Your task to perform on an android device: Set the phone to "Do not disturb". Image 0: 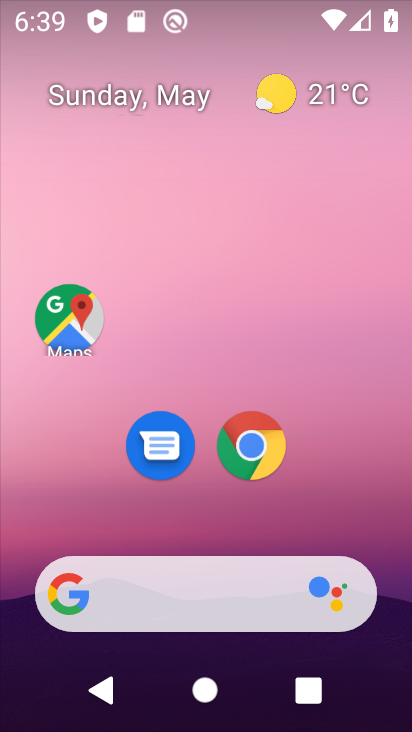
Step 0: drag from (336, 501) to (193, 54)
Your task to perform on an android device: Set the phone to "Do not disturb". Image 1: 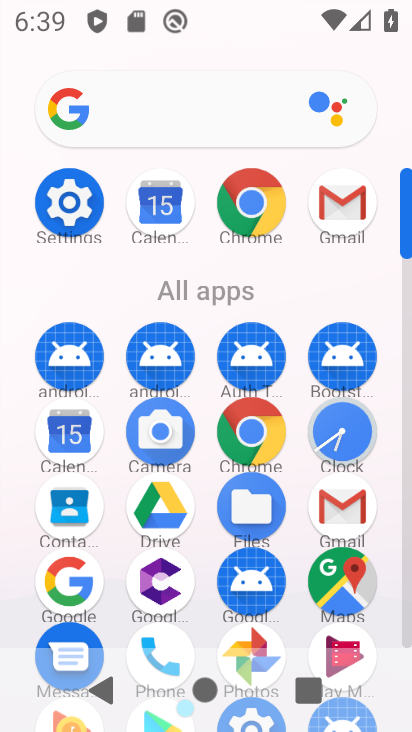
Step 1: click (70, 187)
Your task to perform on an android device: Set the phone to "Do not disturb". Image 2: 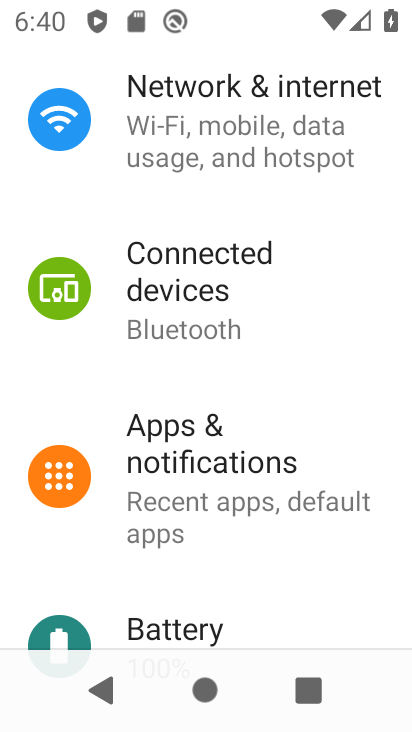
Step 2: drag from (275, 530) to (224, 285)
Your task to perform on an android device: Set the phone to "Do not disturb". Image 3: 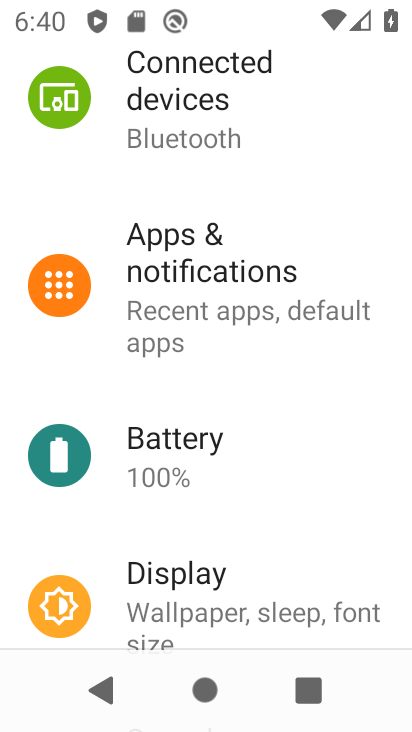
Step 3: drag from (225, 483) to (173, 87)
Your task to perform on an android device: Set the phone to "Do not disturb". Image 4: 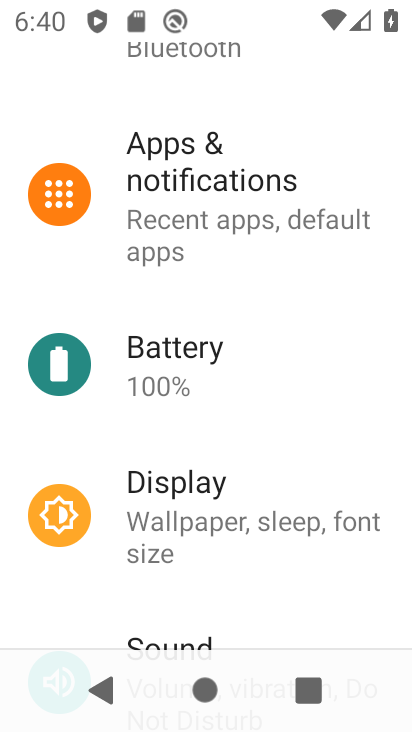
Step 4: drag from (234, 397) to (196, 101)
Your task to perform on an android device: Set the phone to "Do not disturb". Image 5: 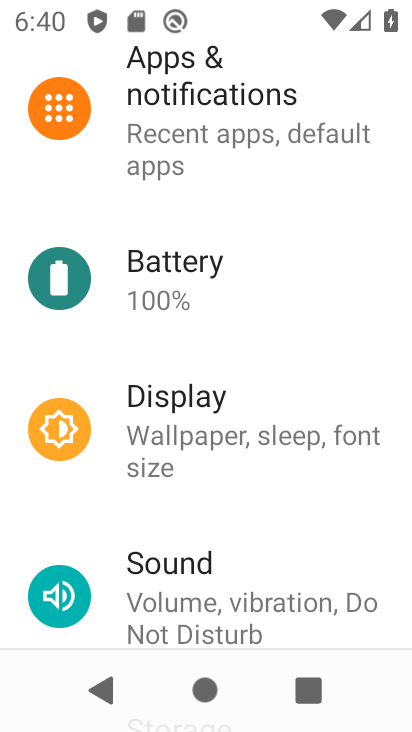
Step 5: click (171, 575)
Your task to perform on an android device: Set the phone to "Do not disturb". Image 6: 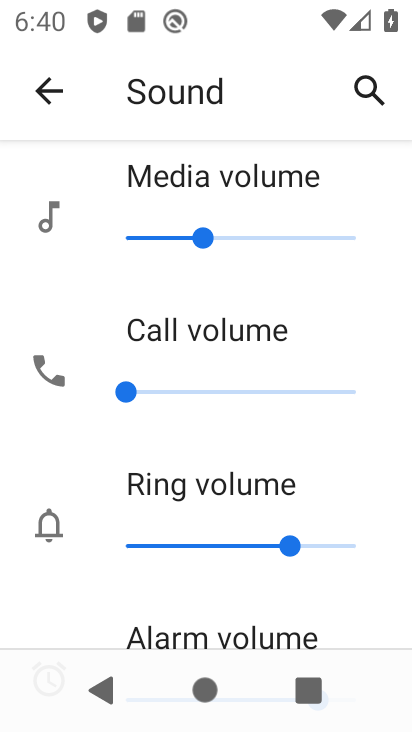
Step 6: drag from (339, 464) to (255, 105)
Your task to perform on an android device: Set the phone to "Do not disturb". Image 7: 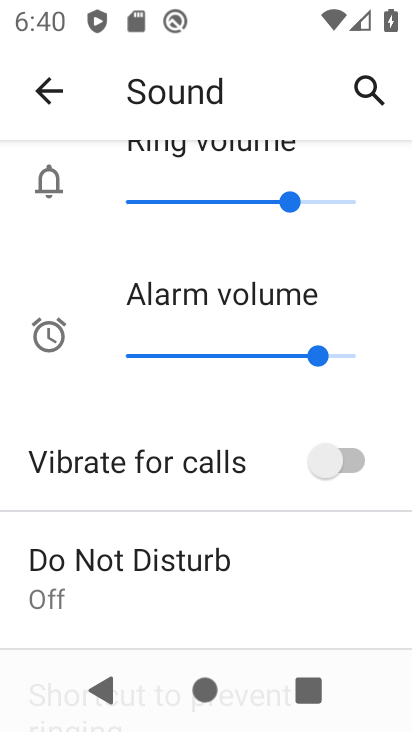
Step 7: drag from (237, 584) to (189, 357)
Your task to perform on an android device: Set the phone to "Do not disturb". Image 8: 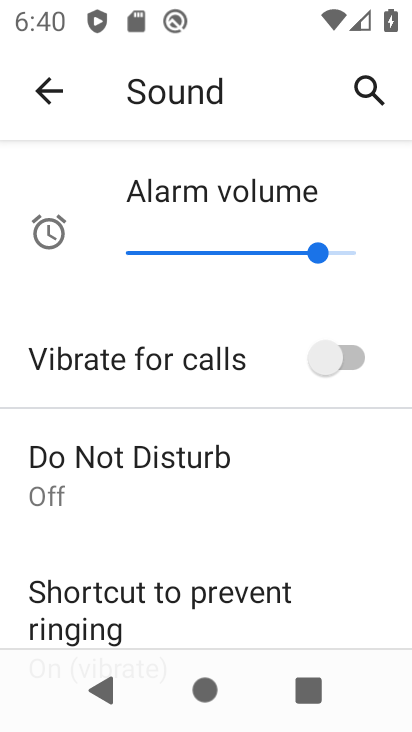
Step 8: click (137, 457)
Your task to perform on an android device: Set the phone to "Do not disturb". Image 9: 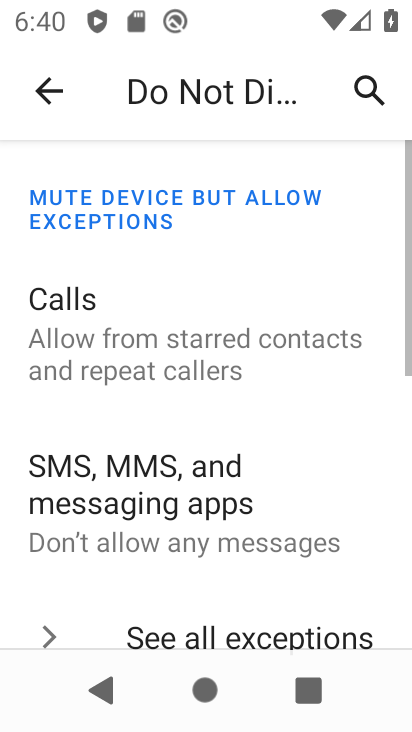
Step 9: drag from (209, 481) to (120, 151)
Your task to perform on an android device: Set the phone to "Do not disturb". Image 10: 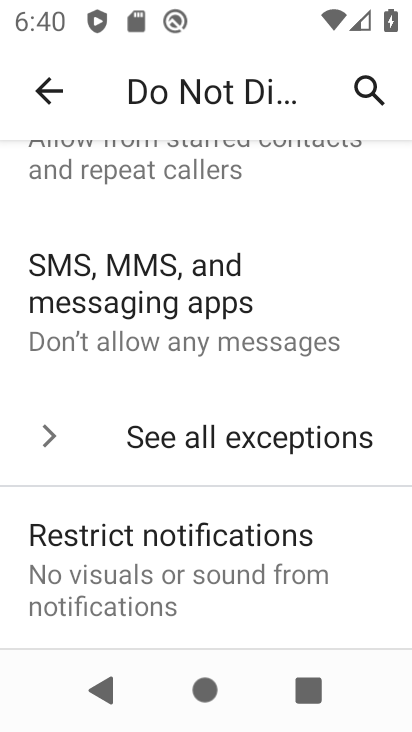
Step 10: drag from (200, 517) to (82, 125)
Your task to perform on an android device: Set the phone to "Do not disturb". Image 11: 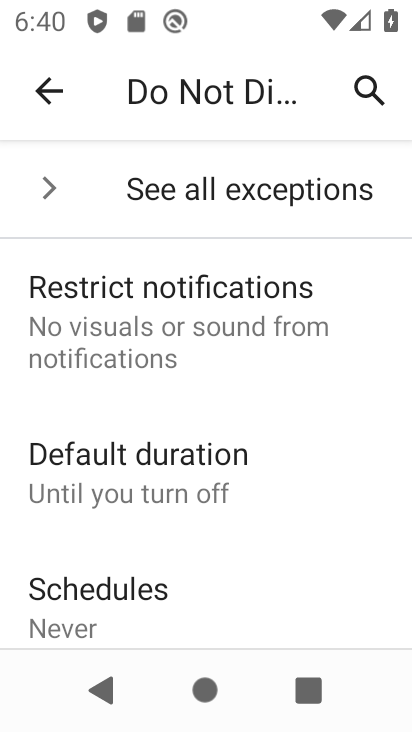
Step 11: drag from (177, 539) to (104, 222)
Your task to perform on an android device: Set the phone to "Do not disturb". Image 12: 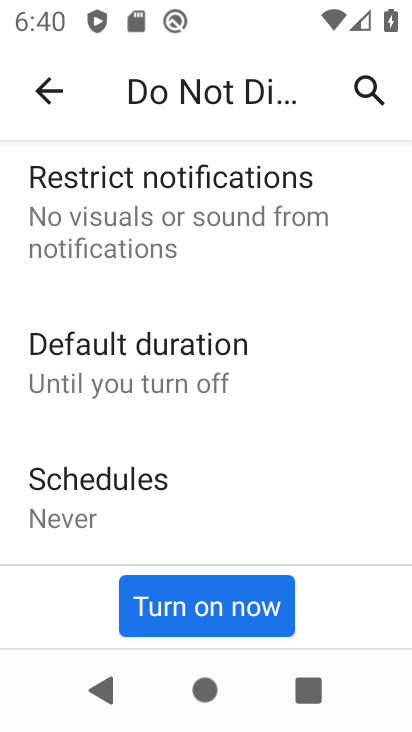
Step 12: click (228, 600)
Your task to perform on an android device: Set the phone to "Do not disturb". Image 13: 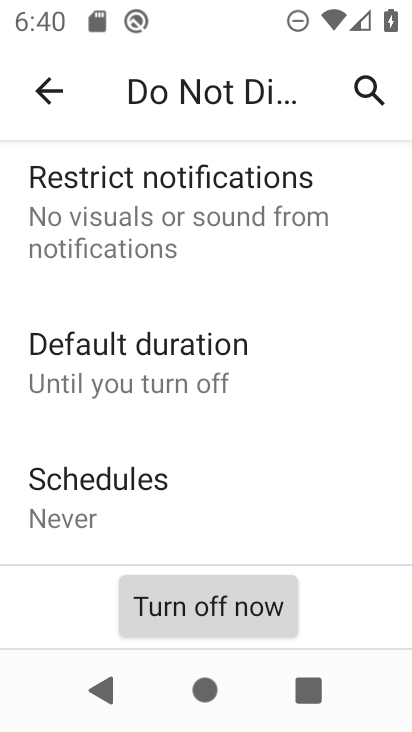
Step 13: task complete